Your task to perform on an android device: Open display settings Image 0: 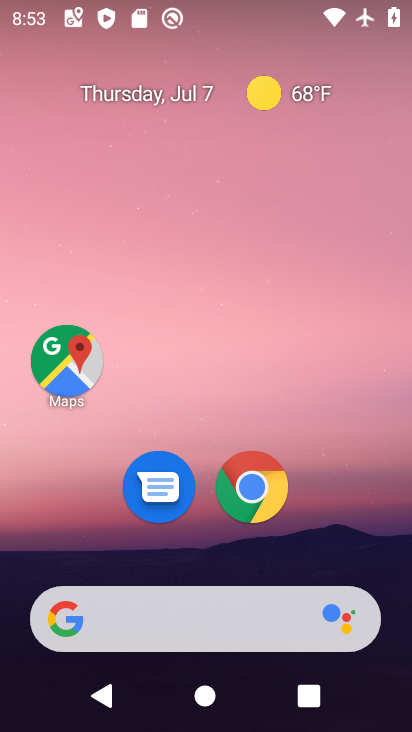
Step 0: drag from (220, 591) to (176, 70)
Your task to perform on an android device: Open display settings Image 1: 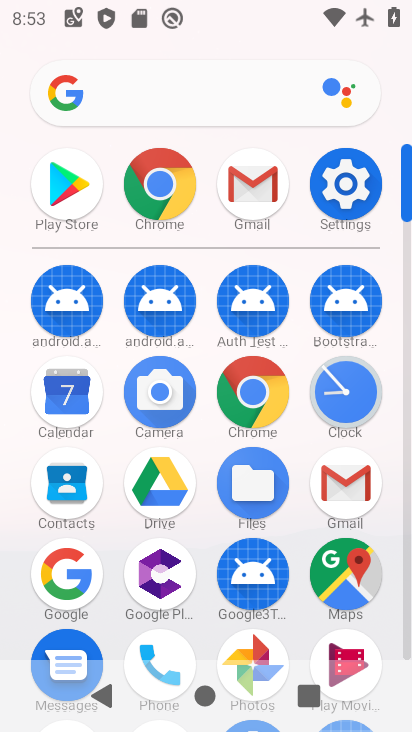
Step 1: click (342, 169)
Your task to perform on an android device: Open display settings Image 2: 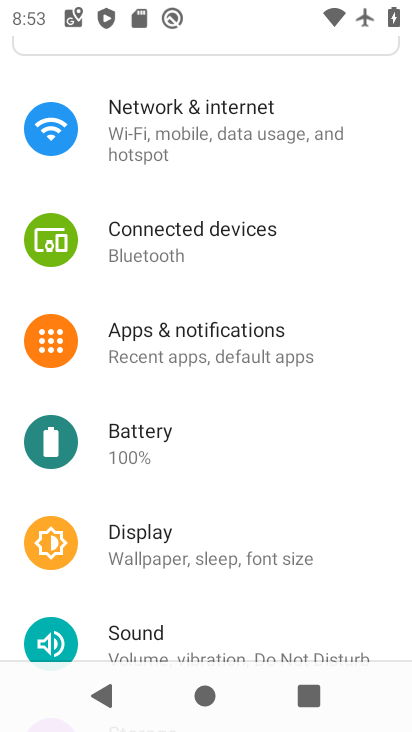
Step 2: click (174, 562)
Your task to perform on an android device: Open display settings Image 3: 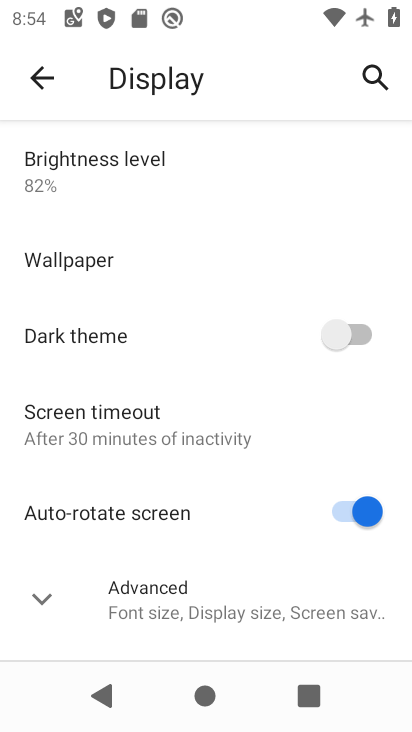
Step 3: task complete